Your task to perform on an android device: check data usage Image 0: 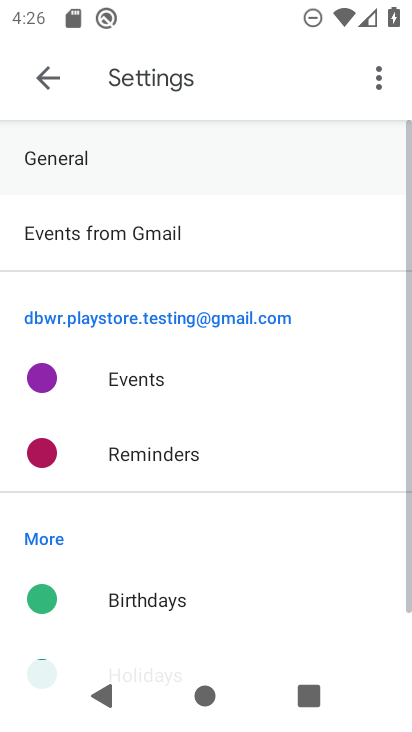
Step 0: press back button
Your task to perform on an android device: check data usage Image 1: 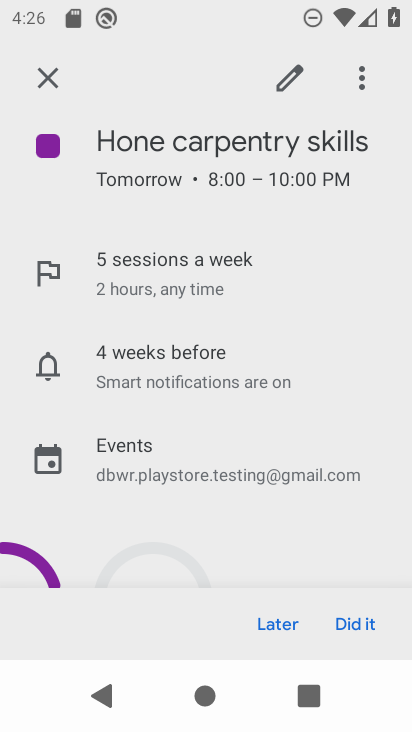
Step 1: press back button
Your task to perform on an android device: check data usage Image 2: 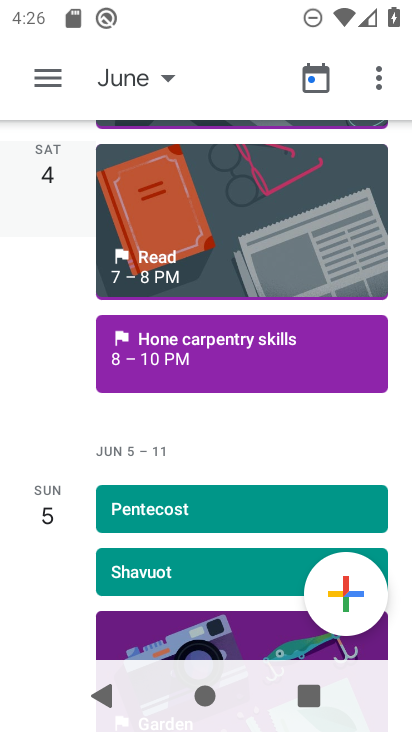
Step 2: press back button
Your task to perform on an android device: check data usage Image 3: 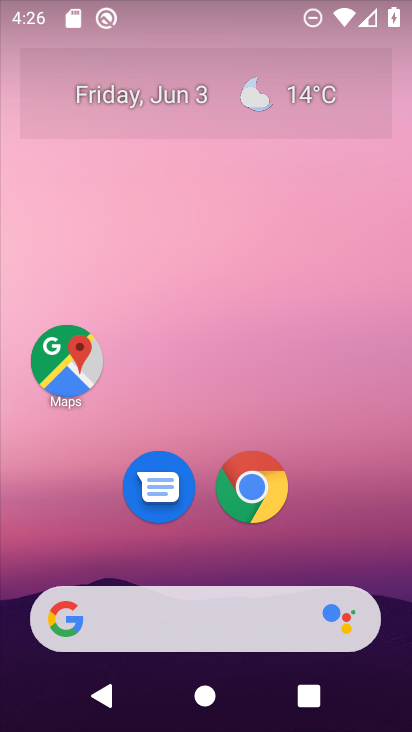
Step 3: drag from (178, 540) to (263, 32)
Your task to perform on an android device: check data usage Image 4: 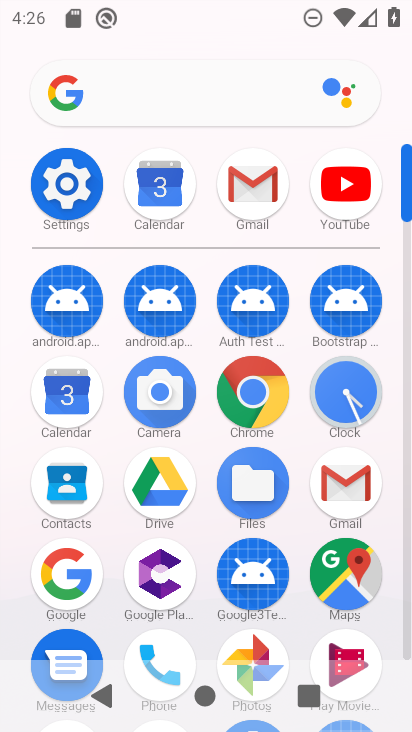
Step 4: click (64, 193)
Your task to perform on an android device: check data usage Image 5: 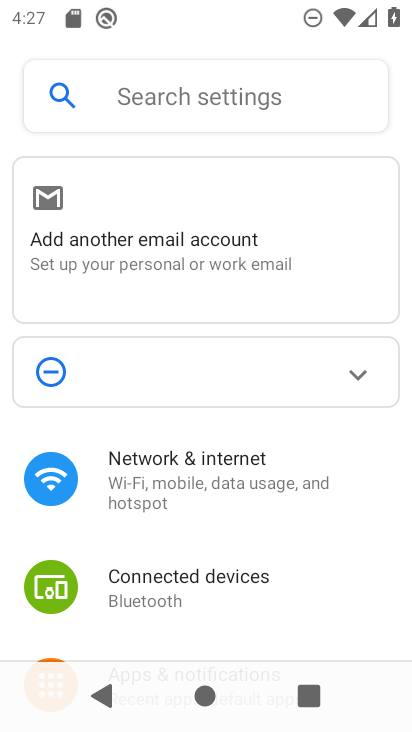
Step 5: click (182, 498)
Your task to perform on an android device: check data usage Image 6: 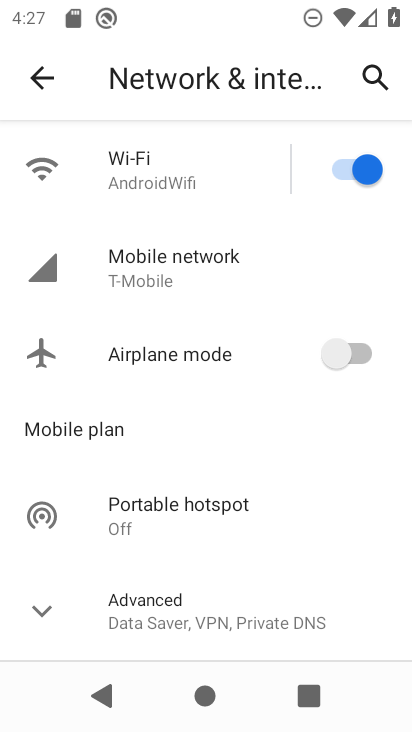
Step 6: click (169, 265)
Your task to perform on an android device: check data usage Image 7: 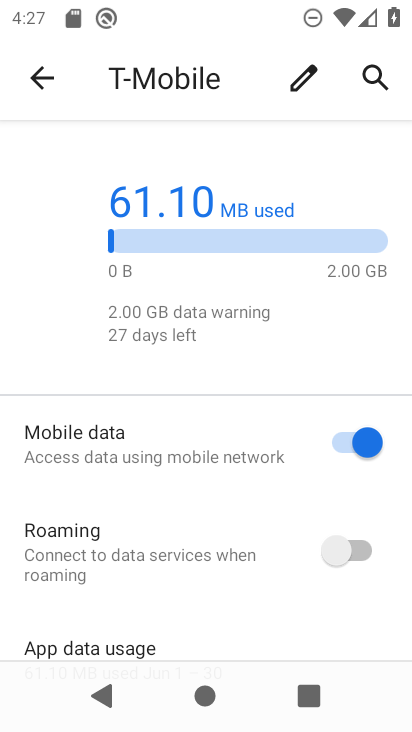
Step 7: drag from (166, 606) to (274, 59)
Your task to perform on an android device: check data usage Image 8: 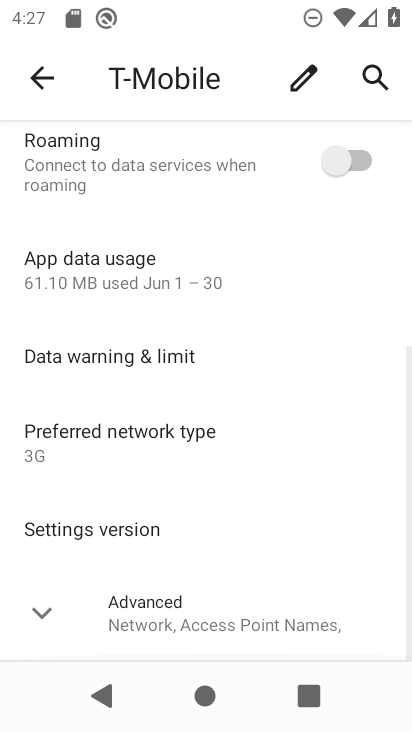
Step 8: click (97, 278)
Your task to perform on an android device: check data usage Image 9: 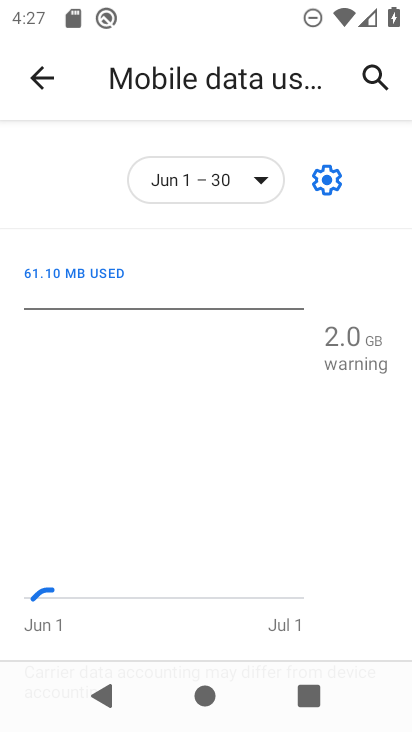
Step 9: task complete